Your task to perform on an android device: Open wifi settings Image 0: 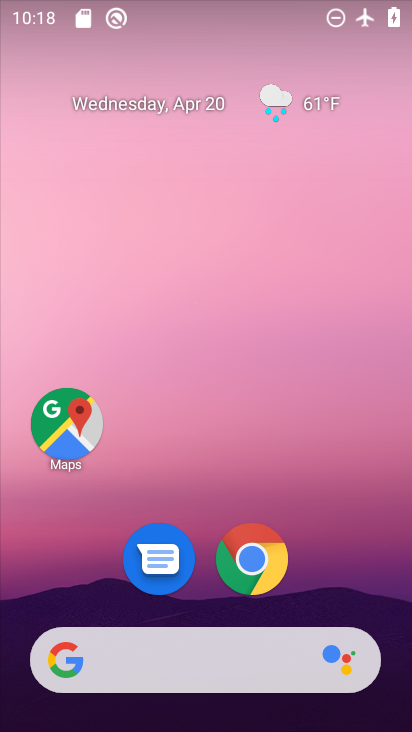
Step 0: drag from (388, 623) to (331, 213)
Your task to perform on an android device: Open wifi settings Image 1: 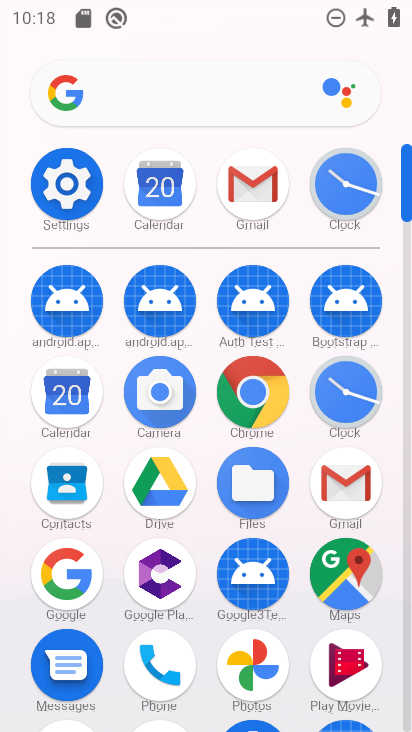
Step 1: click (409, 689)
Your task to perform on an android device: Open wifi settings Image 2: 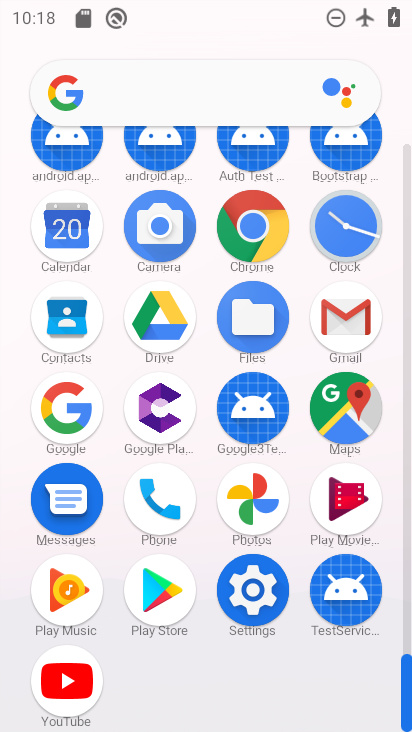
Step 2: click (255, 590)
Your task to perform on an android device: Open wifi settings Image 3: 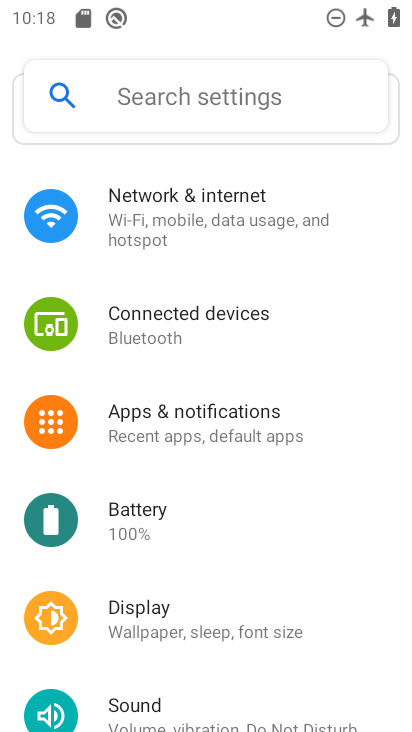
Step 3: click (161, 207)
Your task to perform on an android device: Open wifi settings Image 4: 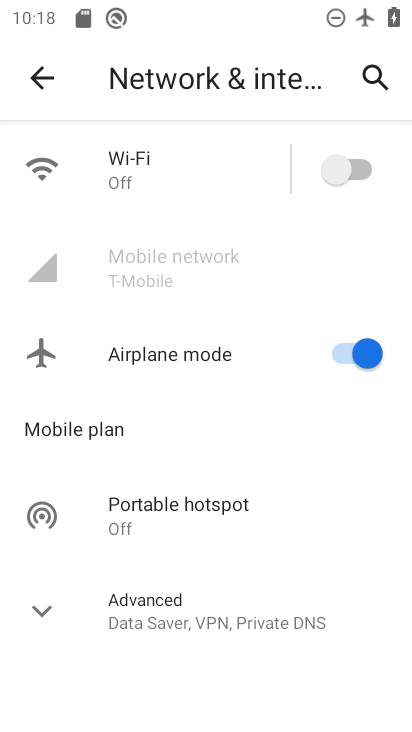
Step 4: click (114, 155)
Your task to perform on an android device: Open wifi settings Image 5: 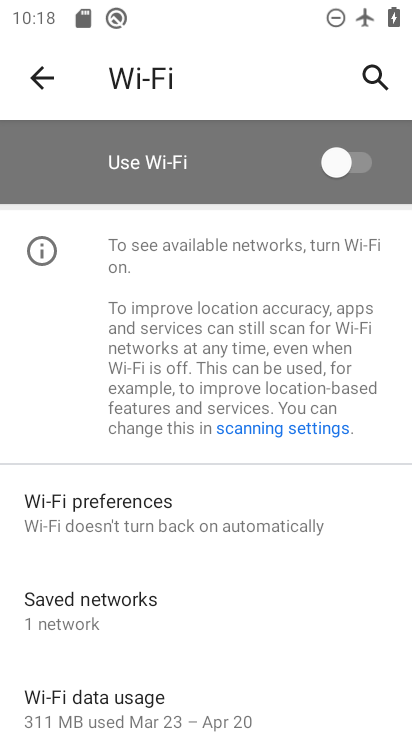
Step 5: task complete